Your task to perform on an android device: toggle wifi Image 0: 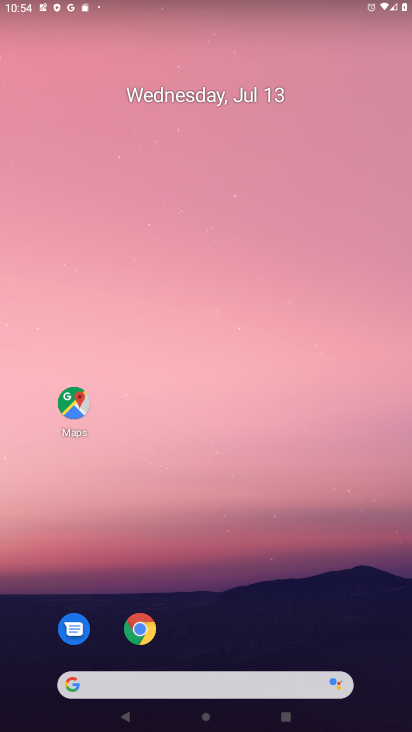
Step 0: drag from (260, 634) to (238, 275)
Your task to perform on an android device: toggle wifi Image 1: 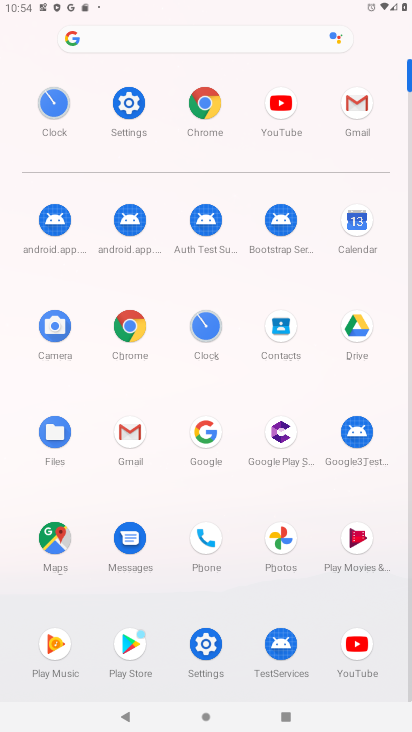
Step 1: click (123, 96)
Your task to perform on an android device: toggle wifi Image 2: 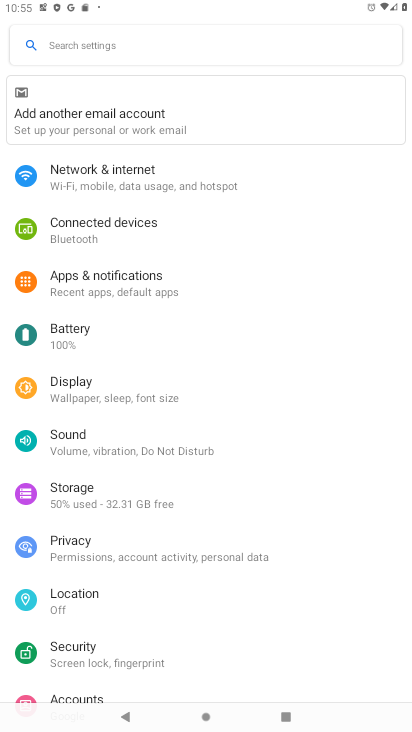
Step 2: click (127, 167)
Your task to perform on an android device: toggle wifi Image 3: 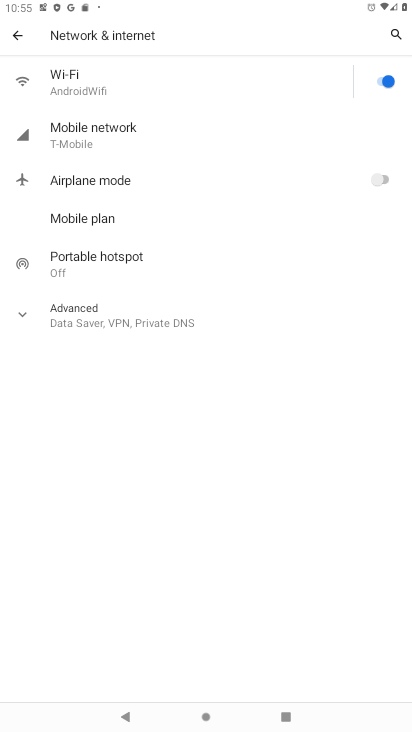
Step 3: click (247, 95)
Your task to perform on an android device: toggle wifi Image 4: 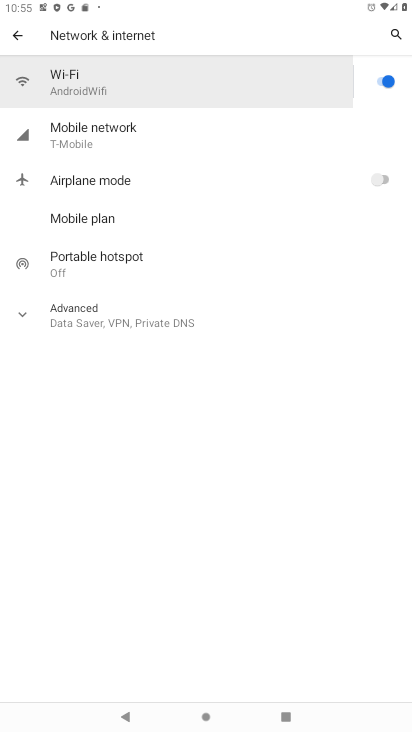
Step 4: task complete